Your task to perform on an android device: Search for sushi restaurants on Maps Image 0: 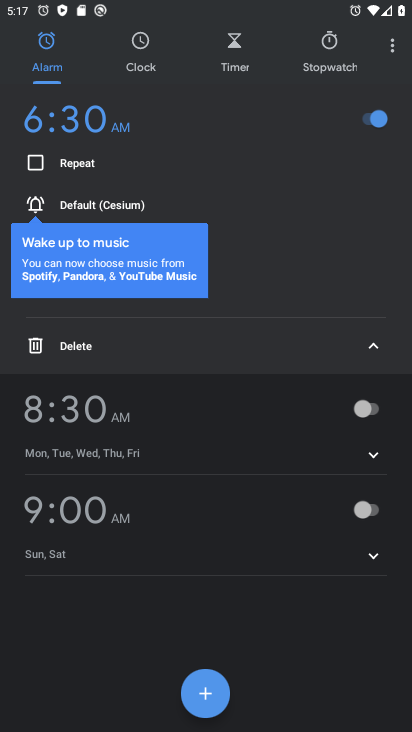
Step 0: press home button
Your task to perform on an android device: Search for sushi restaurants on Maps Image 1: 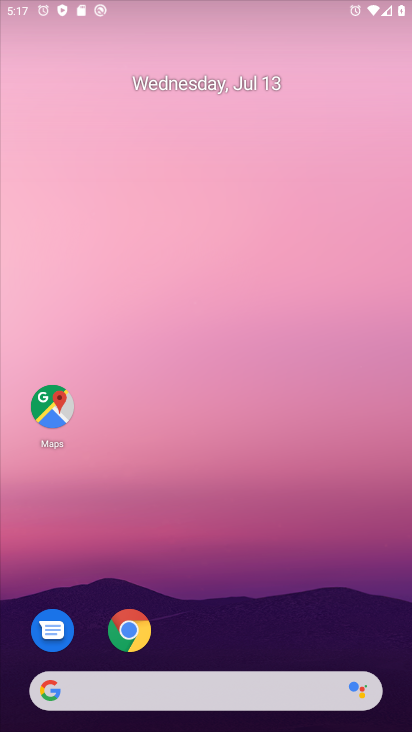
Step 1: drag from (281, 589) to (307, 80)
Your task to perform on an android device: Search for sushi restaurants on Maps Image 2: 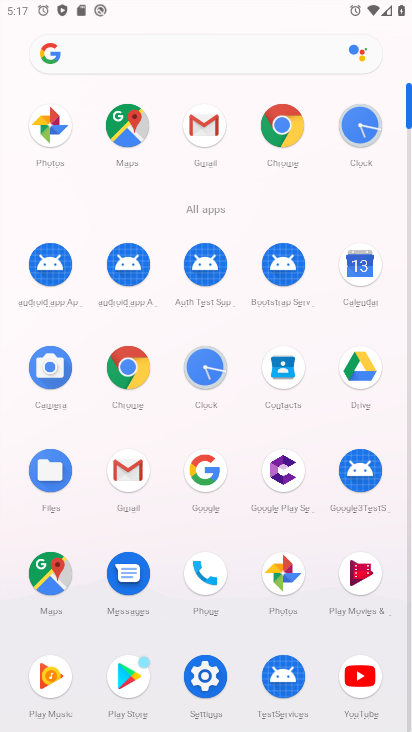
Step 2: click (132, 126)
Your task to perform on an android device: Search for sushi restaurants on Maps Image 3: 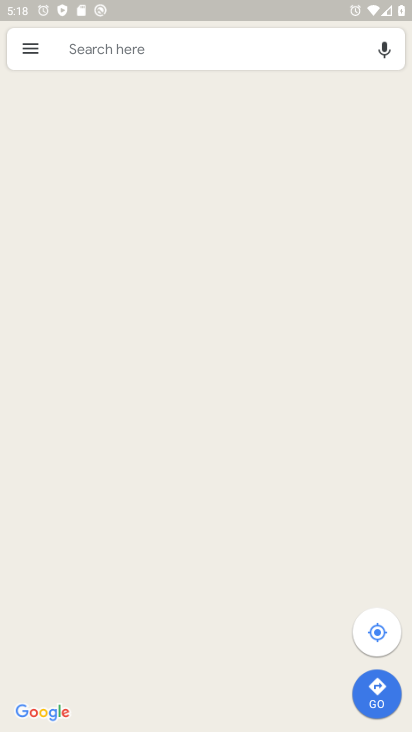
Step 3: click (160, 64)
Your task to perform on an android device: Search for sushi restaurants on Maps Image 4: 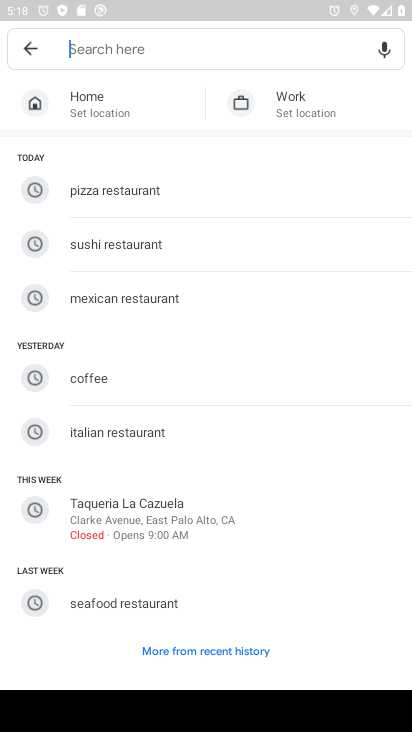
Step 4: type " sushi restaurants"
Your task to perform on an android device: Search for sushi restaurants on Maps Image 5: 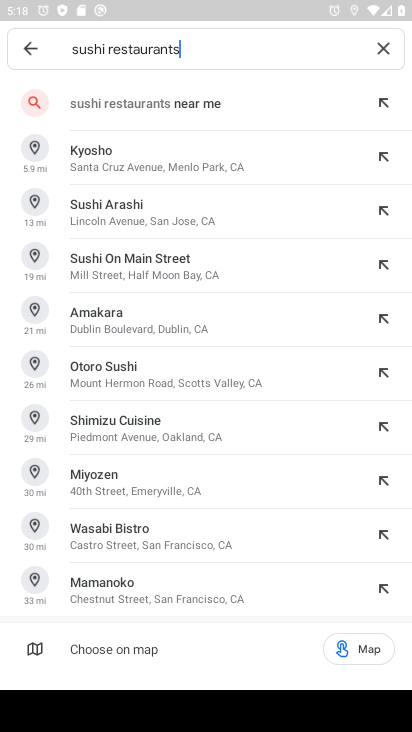
Step 5: click (102, 104)
Your task to perform on an android device: Search for sushi restaurants on Maps Image 6: 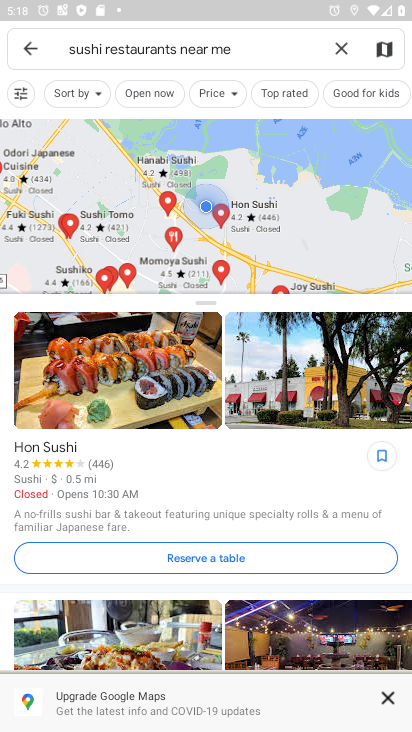
Step 6: task complete